Your task to perform on an android device: move a message to another label in the gmail app Image 0: 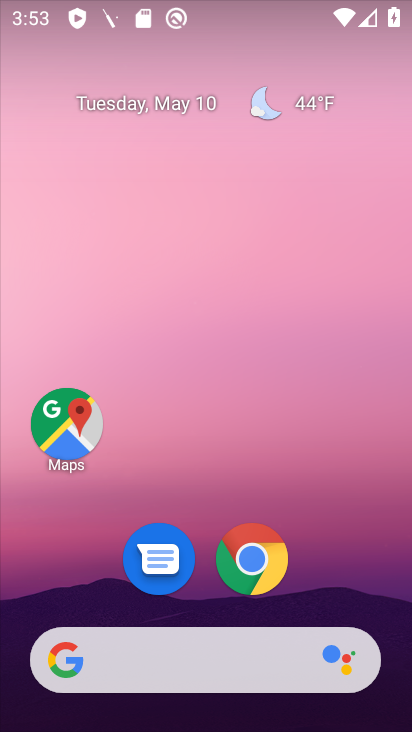
Step 0: drag from (119, 591) to (328, 40)
Your task to perform on an android device: move a message to another label in the gmail app Image 1: 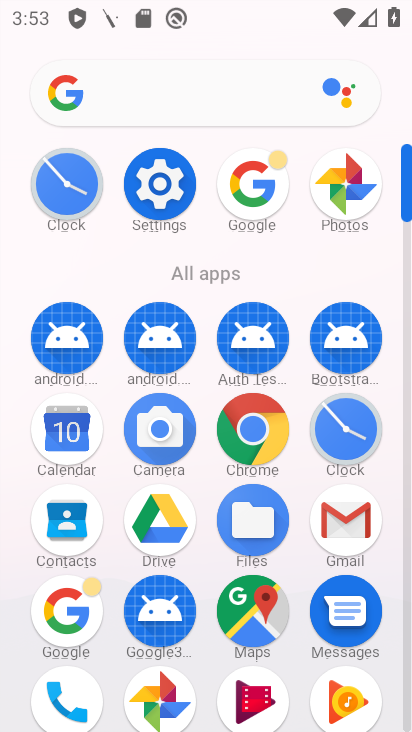
Step 1: click (350, 524)
Your task to perform on an android device: move a message to another label in the gmail app Image 2: 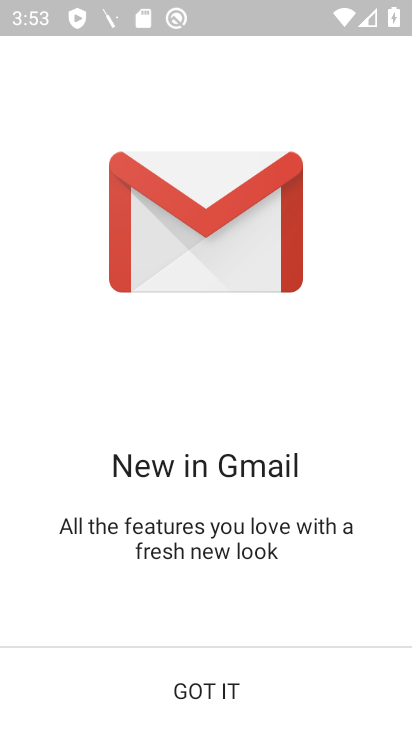
Step 2: click (243, 687)
Your task to perform on an android device: move a message to another label in the gmail app Image 3: 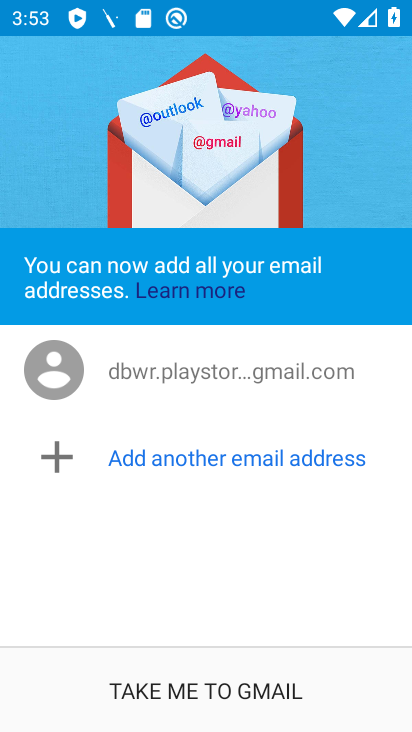
Step 3: click (242, 687)
Your task to perform on an android device: move a message to another label in the gmail app Image 4: 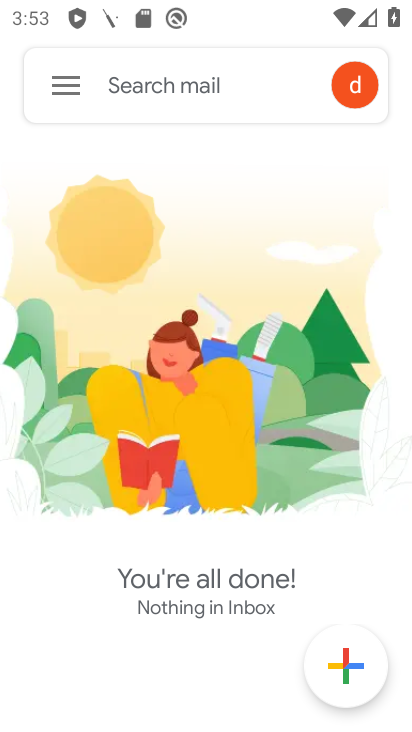
Step 4: click (69, 80)
Your task to perform on an android device: move a message to another label in the gmail app Image 5: 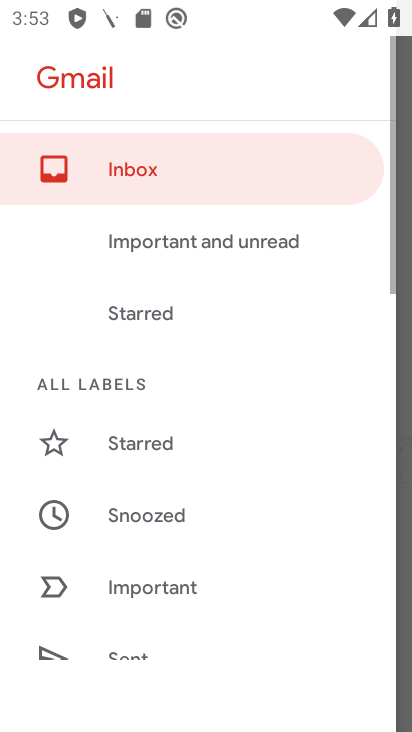
Step 5: drag from (179, 572) to (273, 246)
Your task to perform on an android device: move a message to another label in the gmail app Image 6: 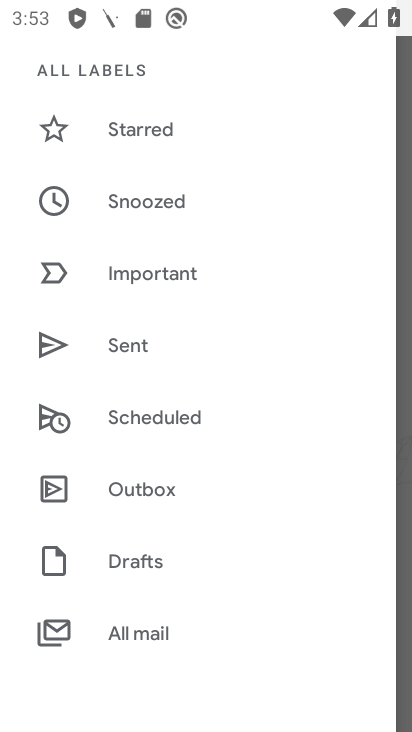
Step 6: click (174, 623)
Your task to perform on an android device: move a message to another label in the gmail app Image 7: 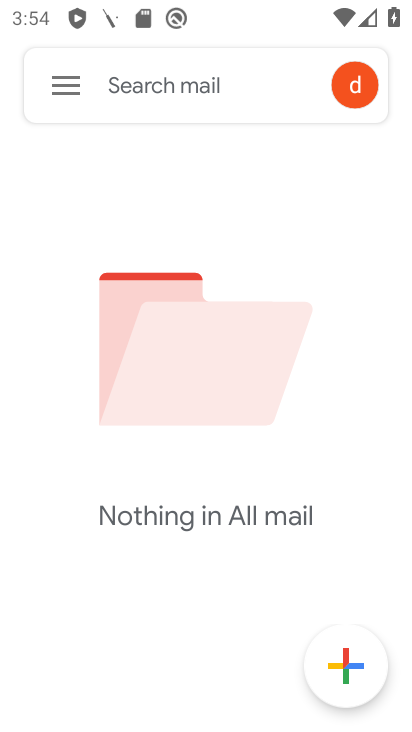
Step 7: task complete